Your task to perform on an android device: Open Google Maps Image 0: 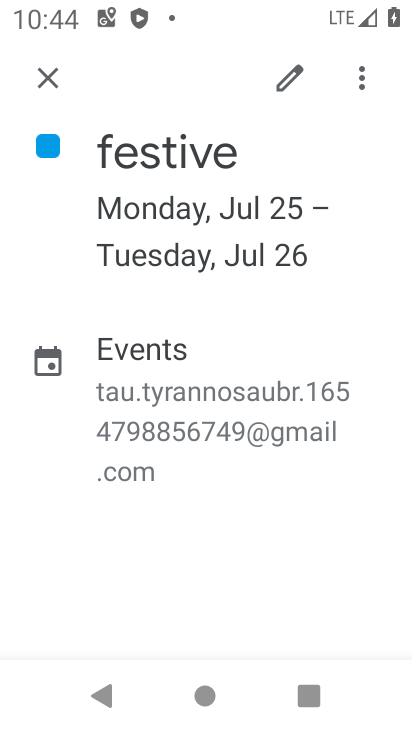
Step 0: press home button
Your task to perform on an android device: Open Google Maps Image 1: 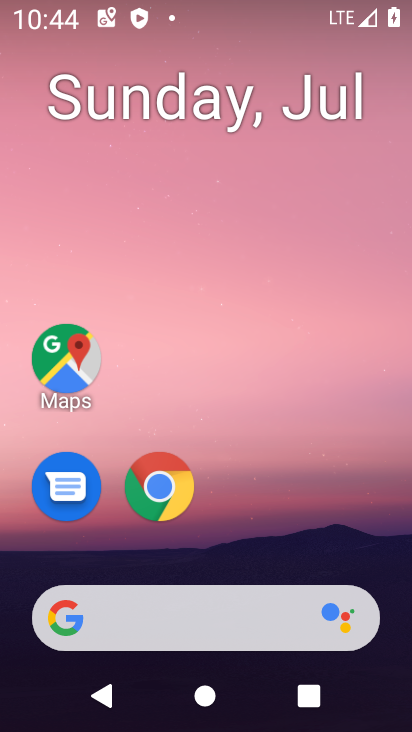
Step 1: drag from (381, 558) to (393, 101)
Your task to perform on an android device: Open Google Maps Image 2: 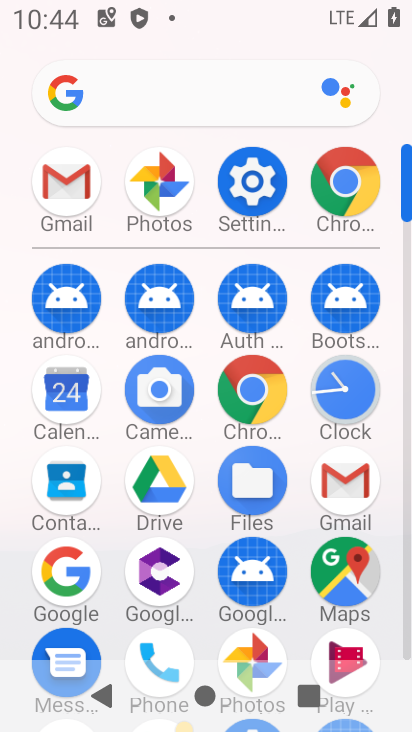
Step 2: click (347, 579)
Your task to perform on an android device: Open Google Maps Image 3: 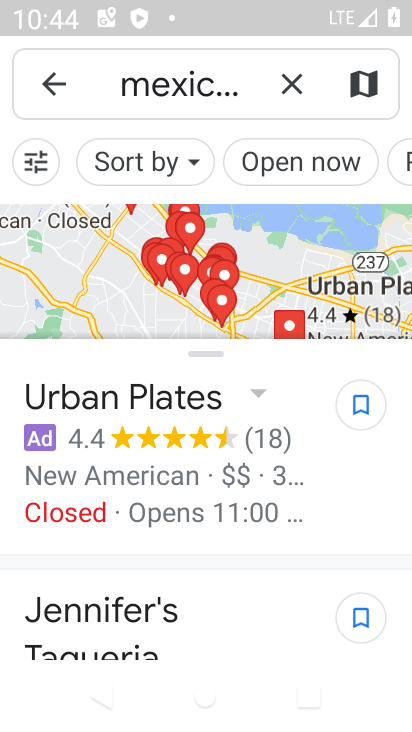
Step 3: task complete